Your task to perform on an android device: change notifications settings Image 0: 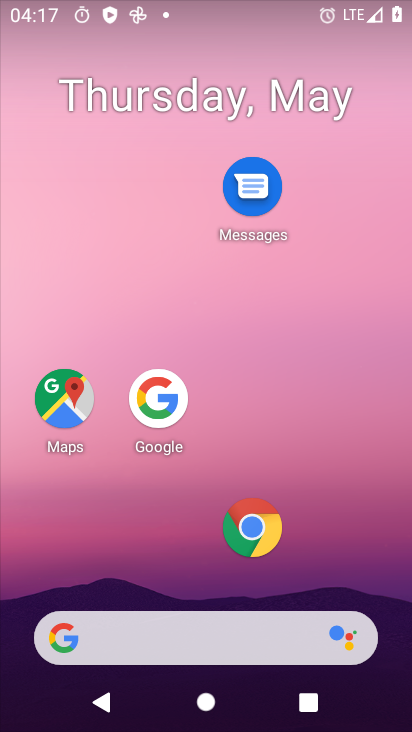
Step 0: drag from (183, 579) to (179, 181)
Your task to perform on an android device: change notifications settings Image 1: 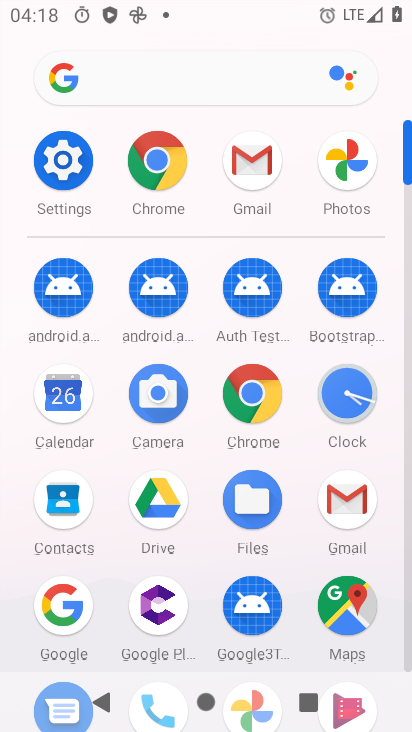
Step 1: click (57, 167)
Your task to perform on an android device: change notifications settings Image 2: 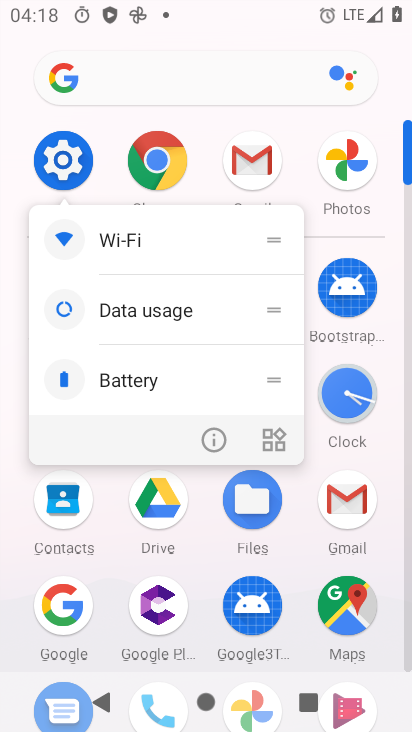
Step 2: click (207, 442)
Your task to perform on an android device: change notifications settings Image 3: 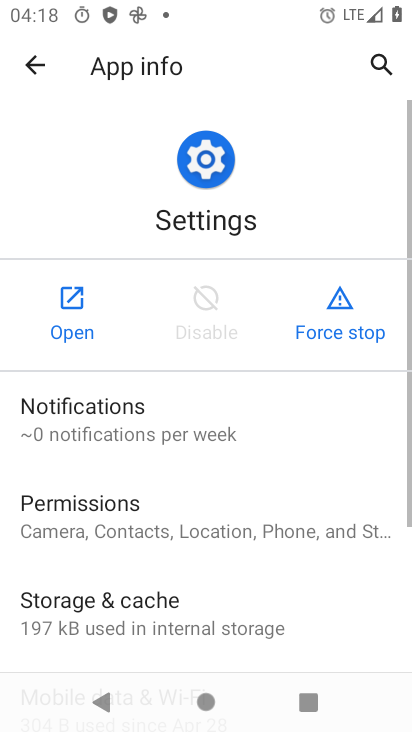
Step 3: click (60, 313)
Your task to perform on an android device: change notifications settings Image 4: 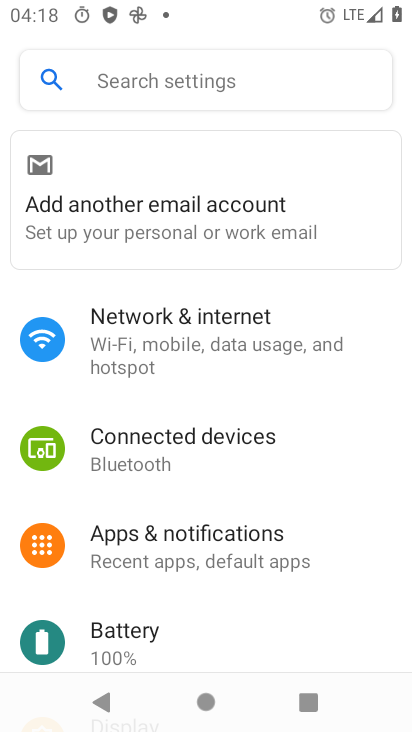
Step 4: click (171, 554)
Your task to perform on an android device: change notifications settings Image 5: 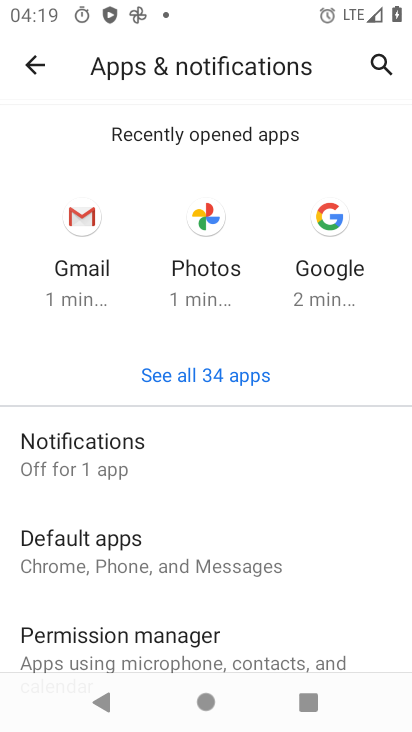
Step 5: click (147, 448)
Your task to perform on an android device: change notifications settings Image 6: 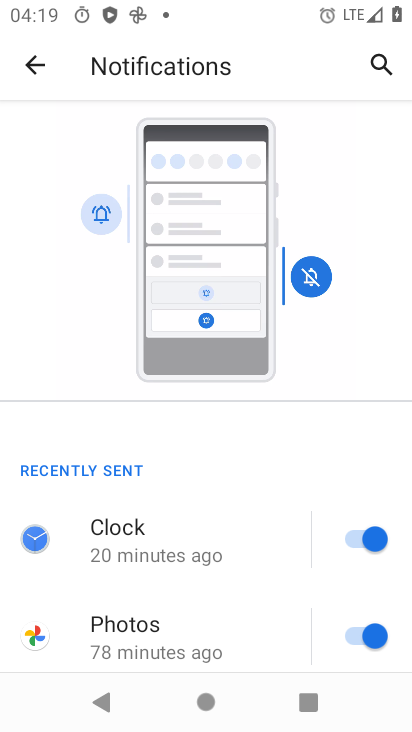
Step 6: click (351, 535)
Your task to perform on an android device: change notifications settings Image 7: 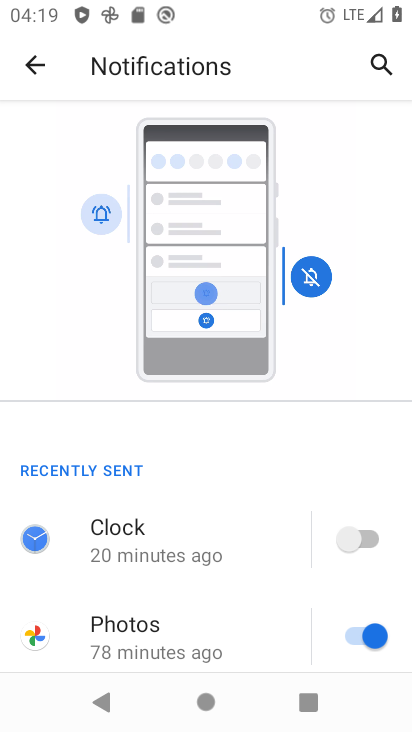
Step 7: task complete